Your task to perform on an android device: turn off wifi Image 0: 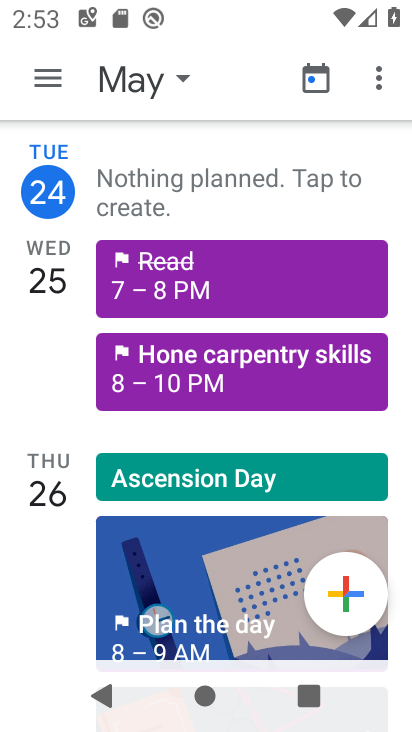
Step 0: drag from (239, 6) to (200, 609)
Your task to perform on an android device: turn off wifi Image 1: 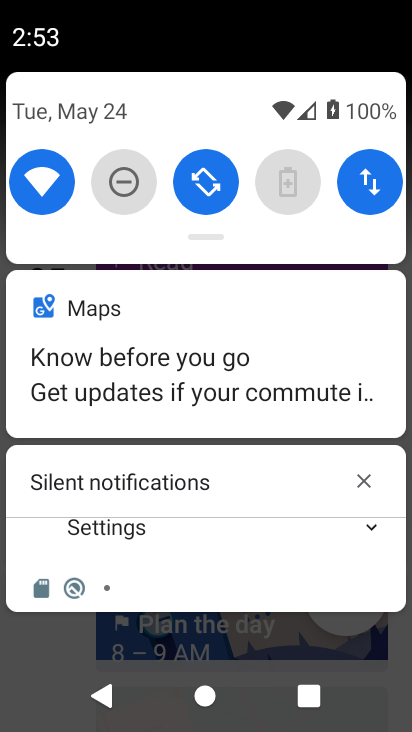
Step 1: click (60, 176)
Your task to perform on an android device: turn off wifi Image 2: 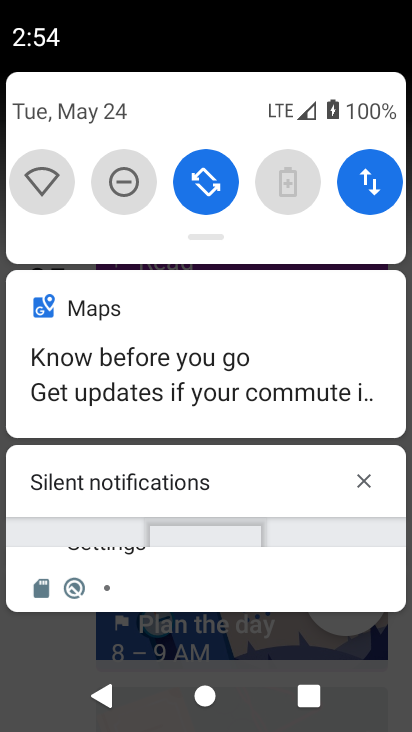
Step 2: task complete